Your task to perform on an android device: toggle translation in the chrome app Image 0: 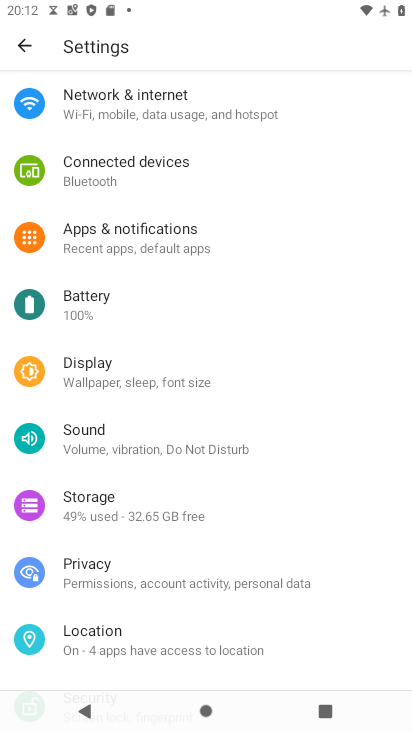
Step 0: press home button
Your task to perform on an android device: toggle translation in the chrome app Image 1: 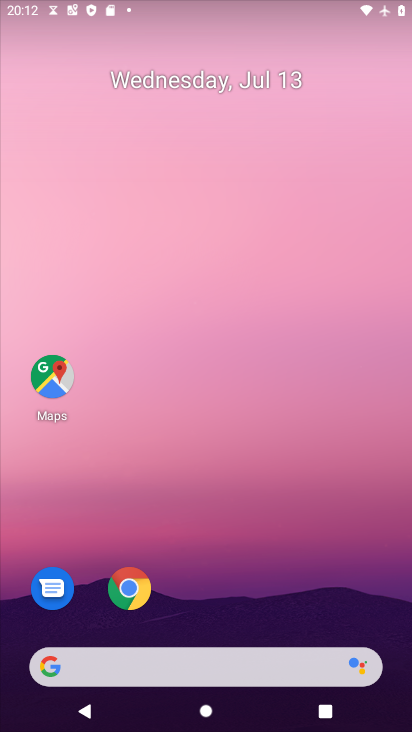
Step 1: drag from (190, 608) to (158, 85)
Your task to perform on an android device: toggle translation in the chrome app Image 2: 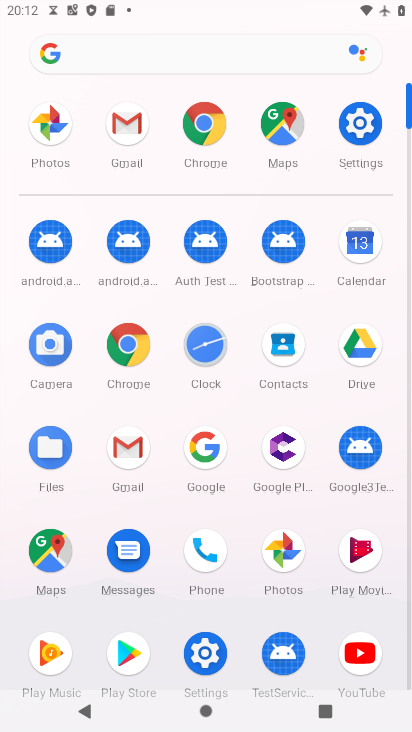
Step 2: click (185, 122)
Your task to perform on an android device: toggle translation in the chrome app Image 3: 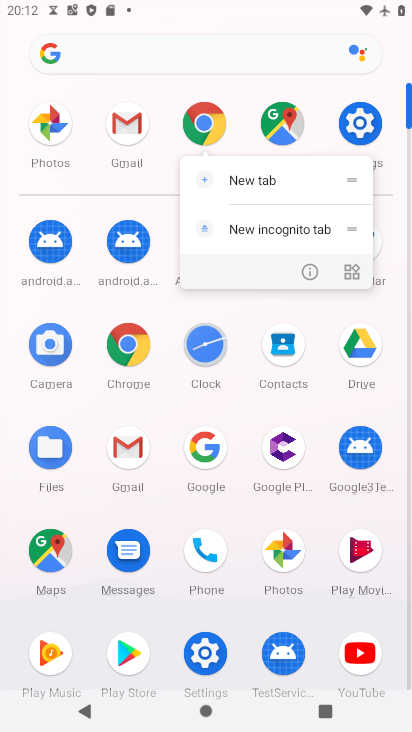
Step 3: click (217, 115)
Your task to perform on an android device: toggle translation in the chrome app Image 4: 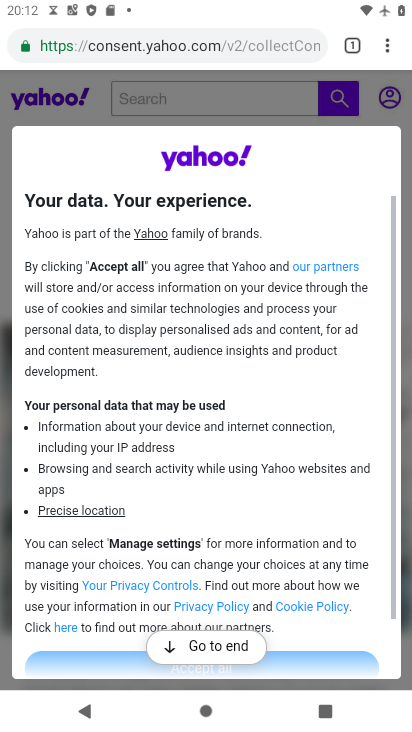
Step 4: click (395, 42)
Your task to perform on an android device: toggle translation in the chrome app Image 5: 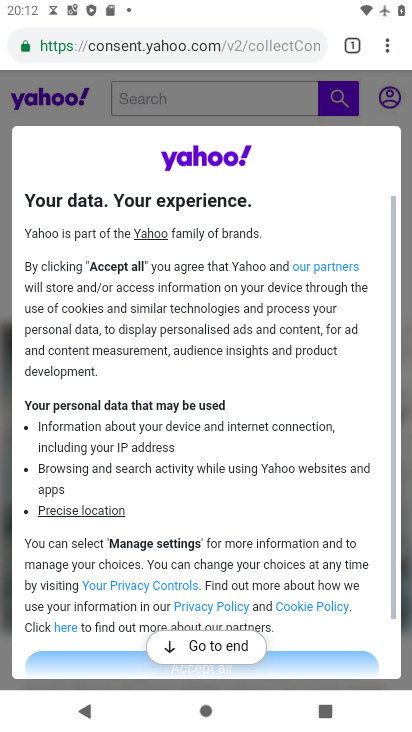
Step 5: click (389, 40)
Your task to perform on an android device: toggle translation in the chrome app Image 6: 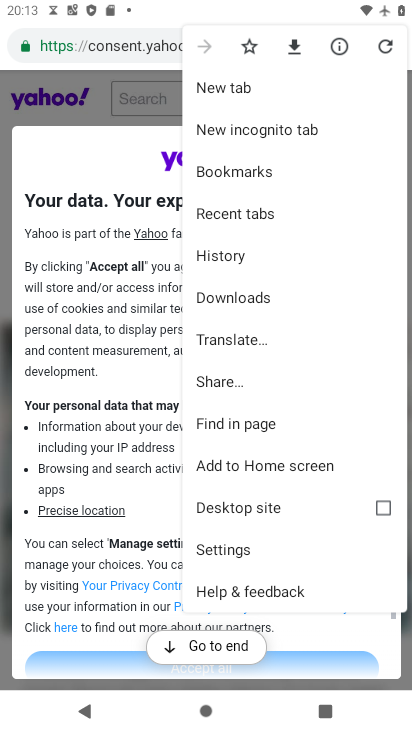
Step 6: click (242, 556)
Your task to perform on an android device: toggle translation in the chrome app Image 7: 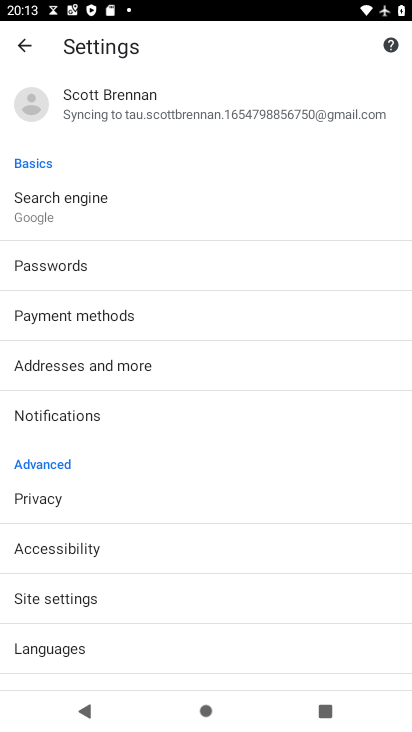
Step 7: drag from (223, 575) to (103, 310)
Your task to perform on an android device: toggle translation in the chrome app Image 8: 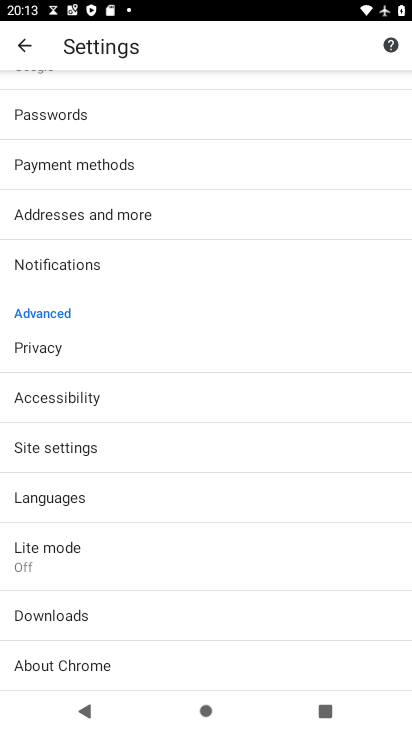
Step 8: click (147, 495)
Your task to perform on an android device: toggle translation in the chrome app Image 9: 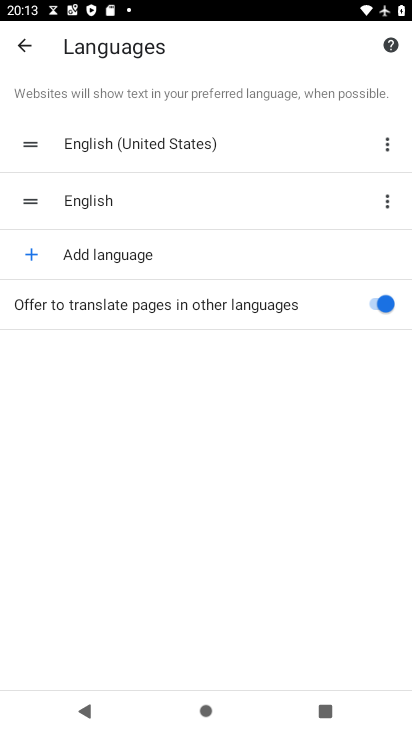
Step 9: click (389, 305)
Your task to perform on an android device: toggle translation in the chrome app Image 10: 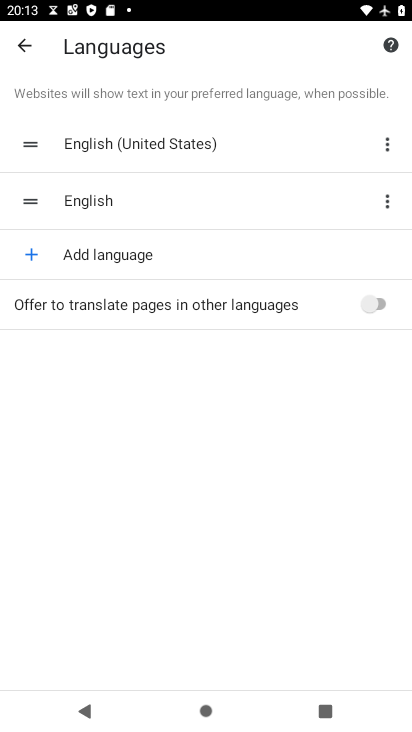
Step 10: task complete